Your task to perform on an android device: turn on the 12-hour format for clock Image 0: 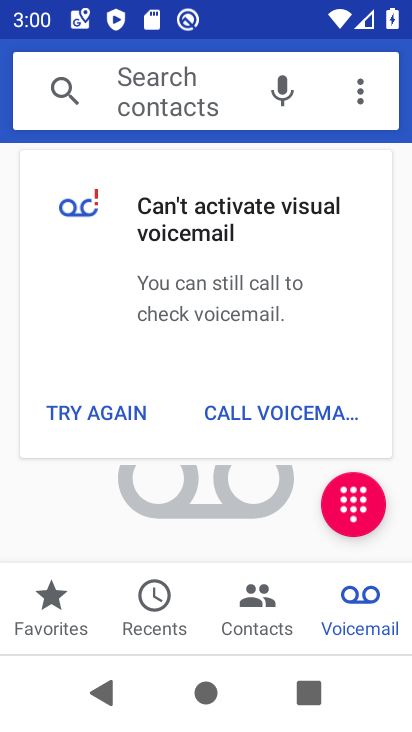
Step 0: press home button
Your task to perform on an android device: turn on the 12-hour format for clock Image 1: 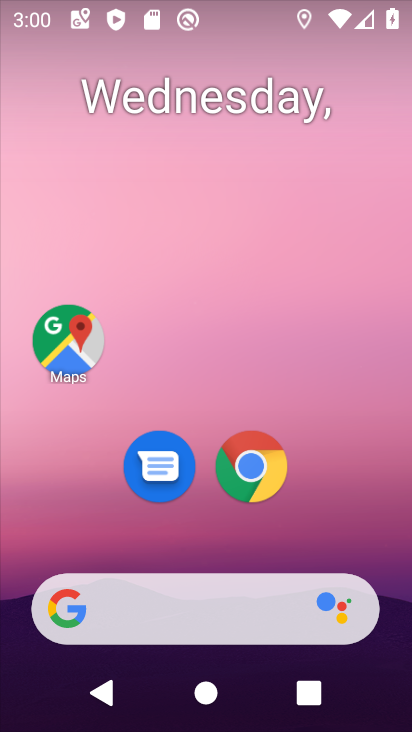
Step 1: drag from (196, 564) to (107, 28)
Your task to perform on an android device: turn on the 12-hour format for clock Image 2: 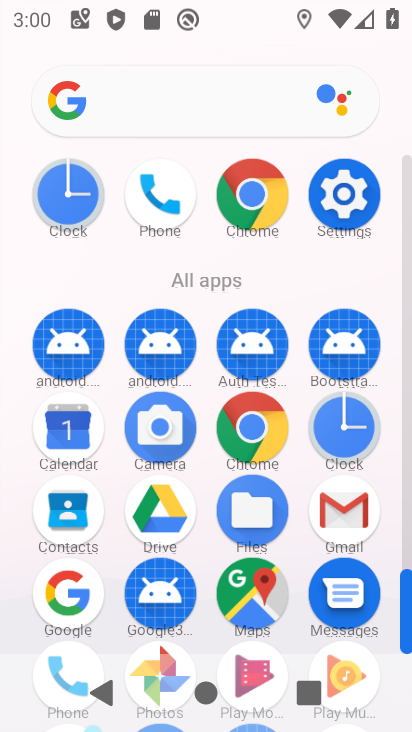
Step 2: click (355, 433)
Your task to perform on an android device: turn on the 12-hour format for clock Image 3: 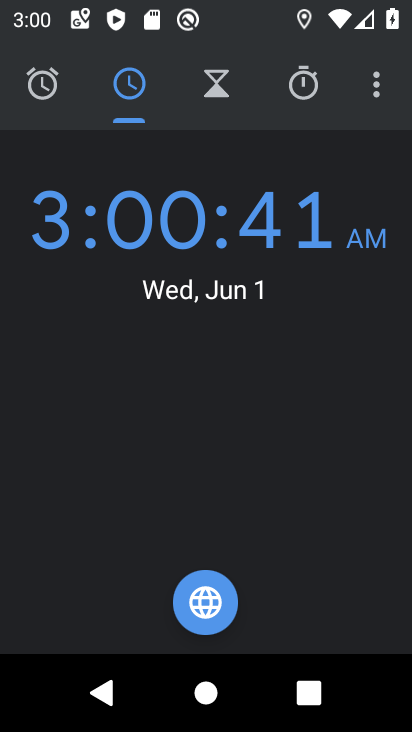
Step 3: click (368, 84)
Your task to perform on an android device: turn on the 12-hour format for clock Image 4: 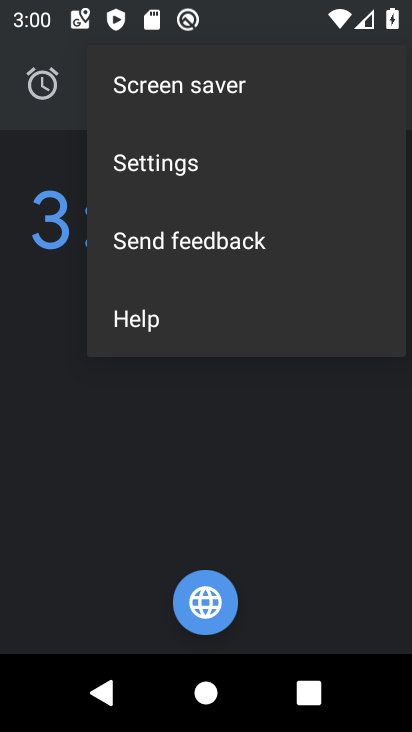
Step 4: click (204, 161)
Your task to perform on an android device: turn on the 12-hour format for clock Image 5: 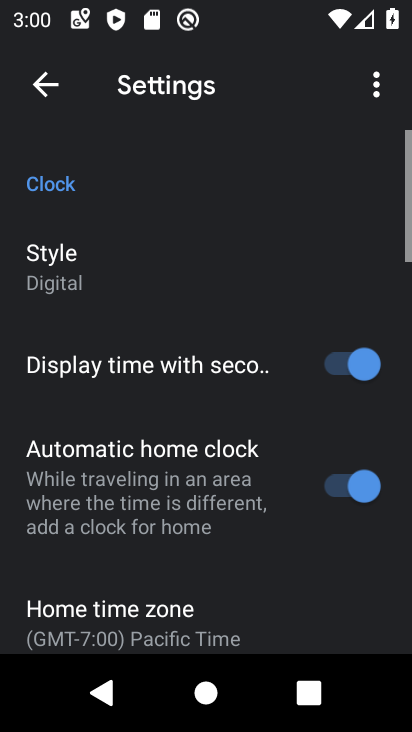
Step 5: drag from (242, 490) to (175, 90)
Your task to perform on an android device: turn on the 12-hour format for clock Image 6: 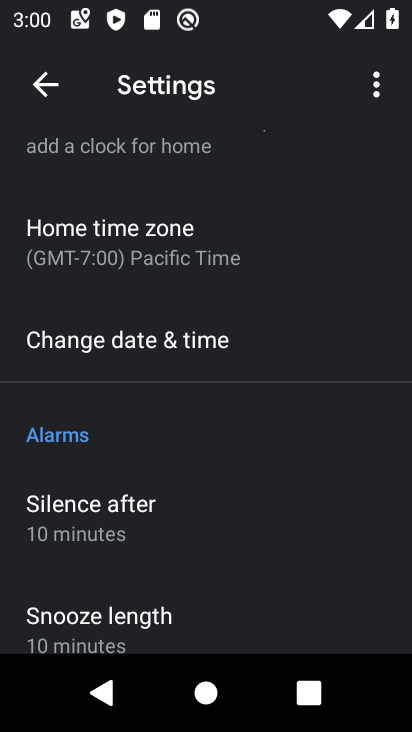
Step 6: click (152, 319)
Your task to perform on an android device: turn on the 12-hour format for clock Image 7: 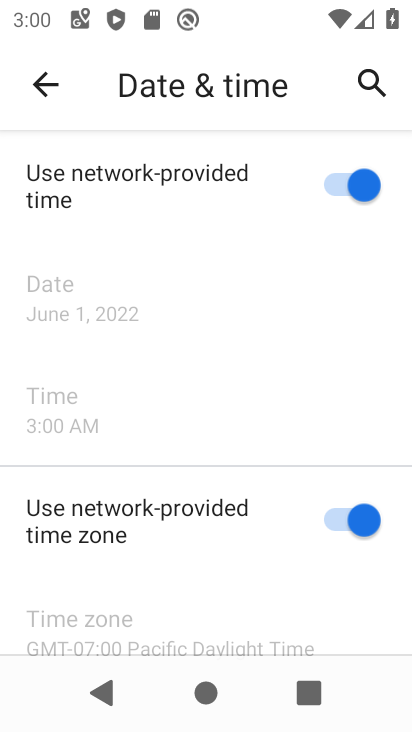
Step 7: task complete